Your task to perform on an android device: change the clock display to analog Image 0: 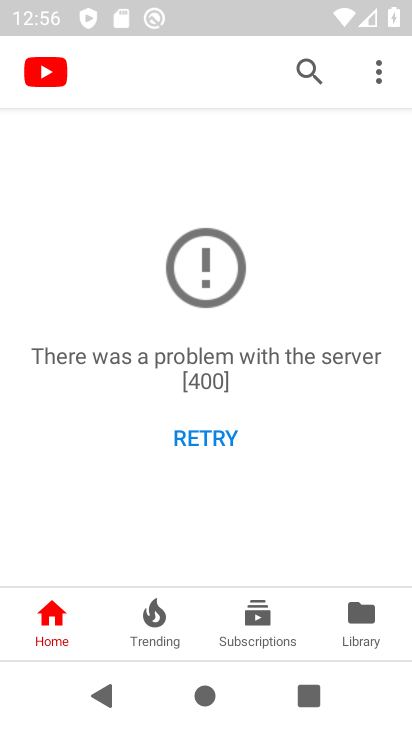
Step 0: press home button
Your task to perform on an android device: change the clock display to analog Image 1: 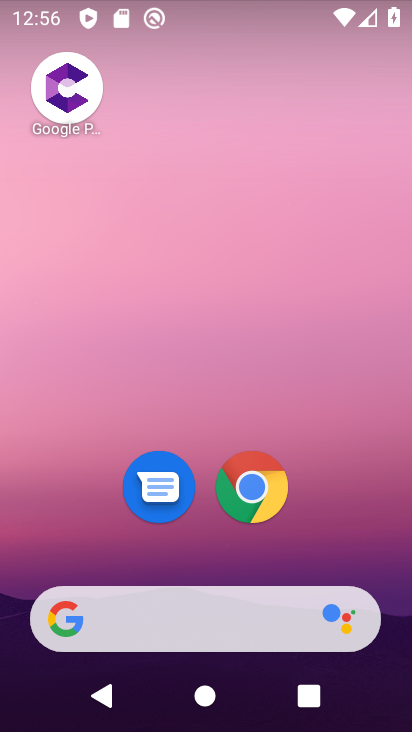
Step 1: drag from (30, 352) to (408, 405)
Your task to perform on an android device: change the clock display to analog Image 2: 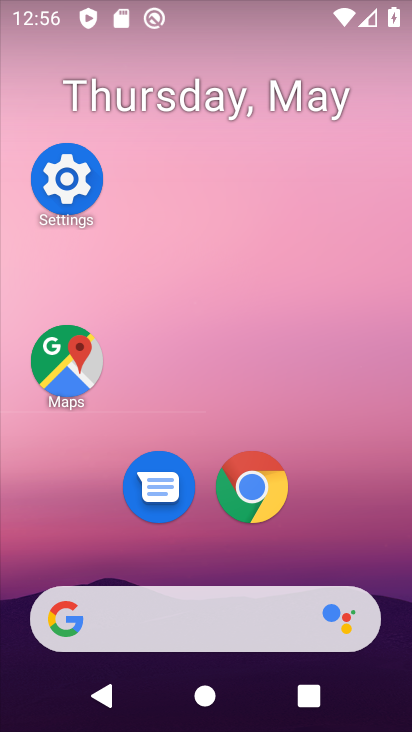
Step 2: drag from (278, 575) to (368, 66)
Your task to perform on an android device: change the clock display to analog Image 3: 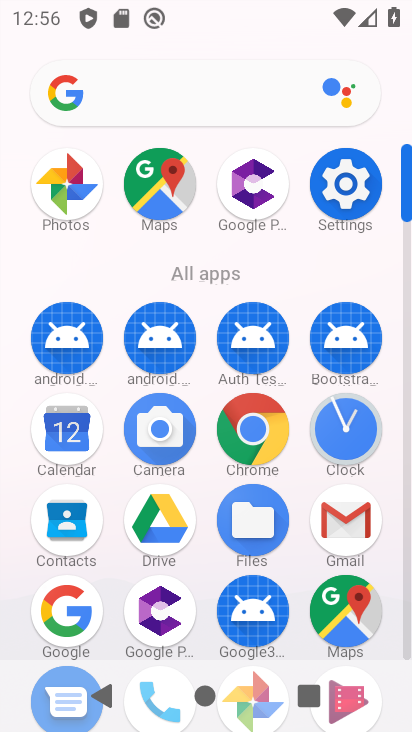
Step 3: drag from (352, 425) to (201, 225)
Your task to perform on an android device: change the clock display to analog Image 4: 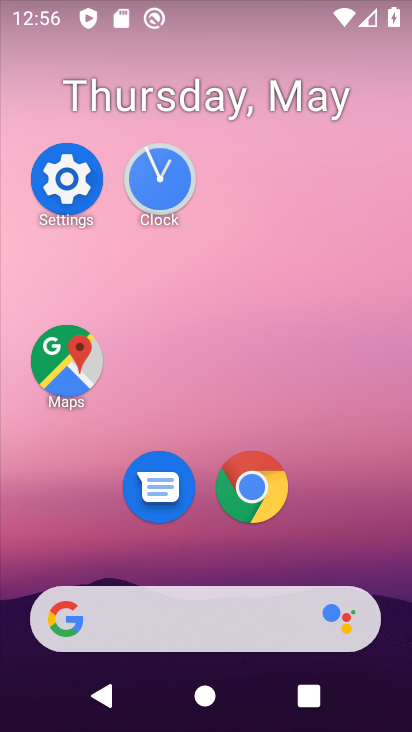
Step 4: click (165, 171)
Your task to perform on an android device: change the clock display to analog Image 5: 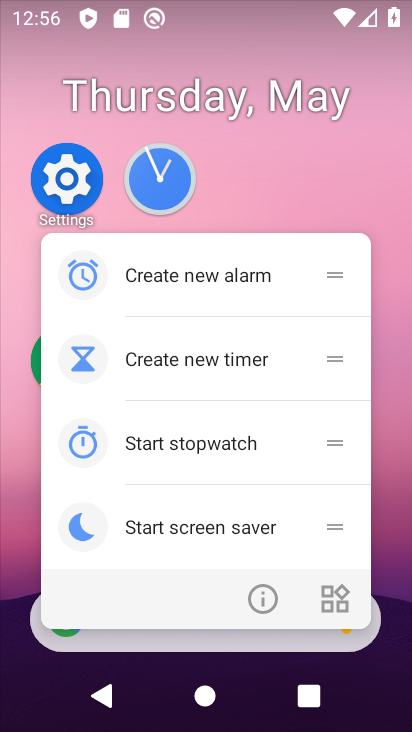
Step 5: click (152, 162)
Your task to perform on an android device: change the clock display to analog Image 6: 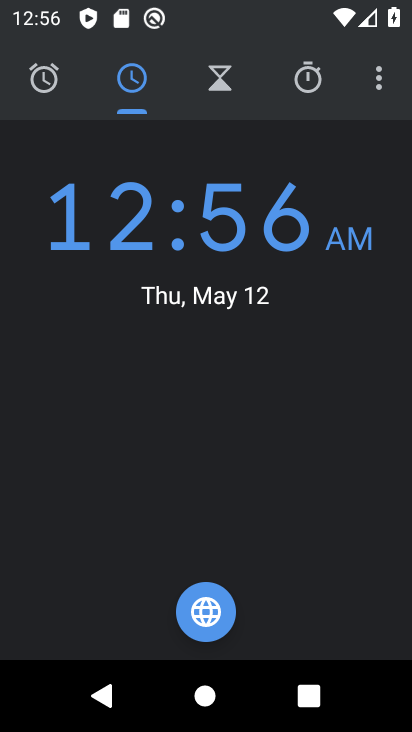
Step 6: click (381, 89)
Your task to perform on an android device: change the clock display to analog Image 7: 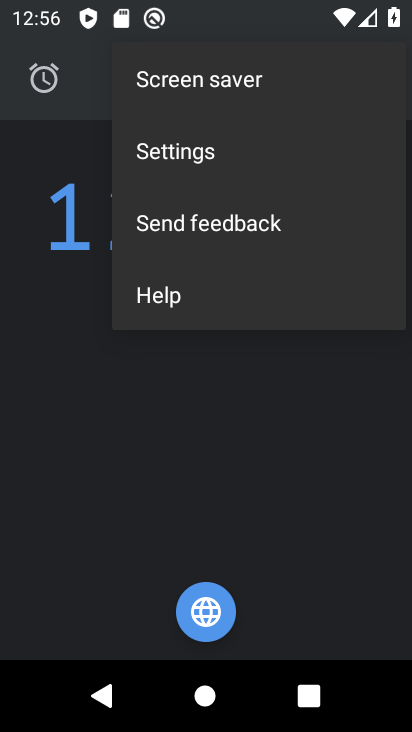
Step 7: click (197, 159)
Your task to perform on an android device: change the clock display to analog Image 8: 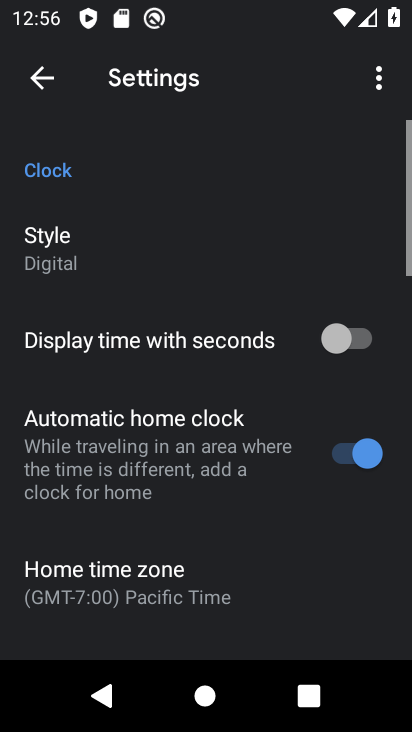
Step 8: click (79, 233)
Your task to perform on an android device: change the clock display to analog Image 9: 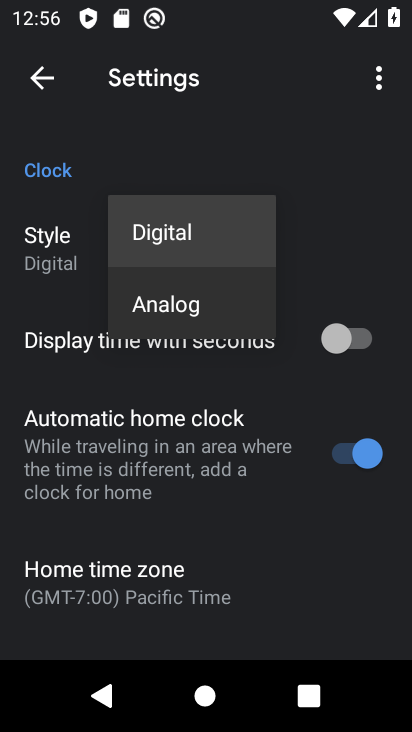
Step 9: click (154, 302)
Your task to perform on an android device: change the clock display to analog Image 10: 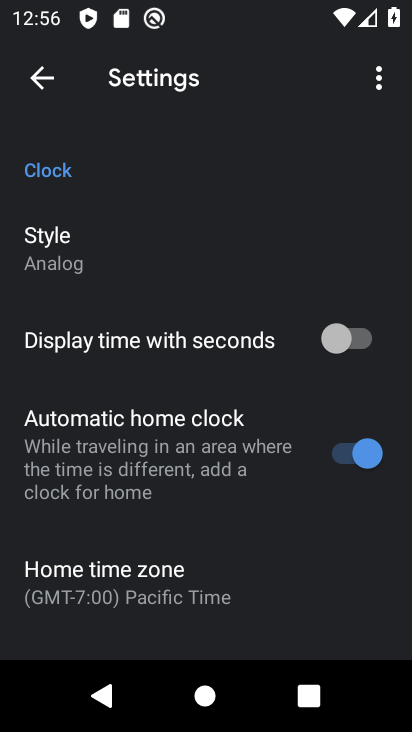
Step 10: task complete